Your task to perform on an android device: What's the news in Ecuador? Image 0: 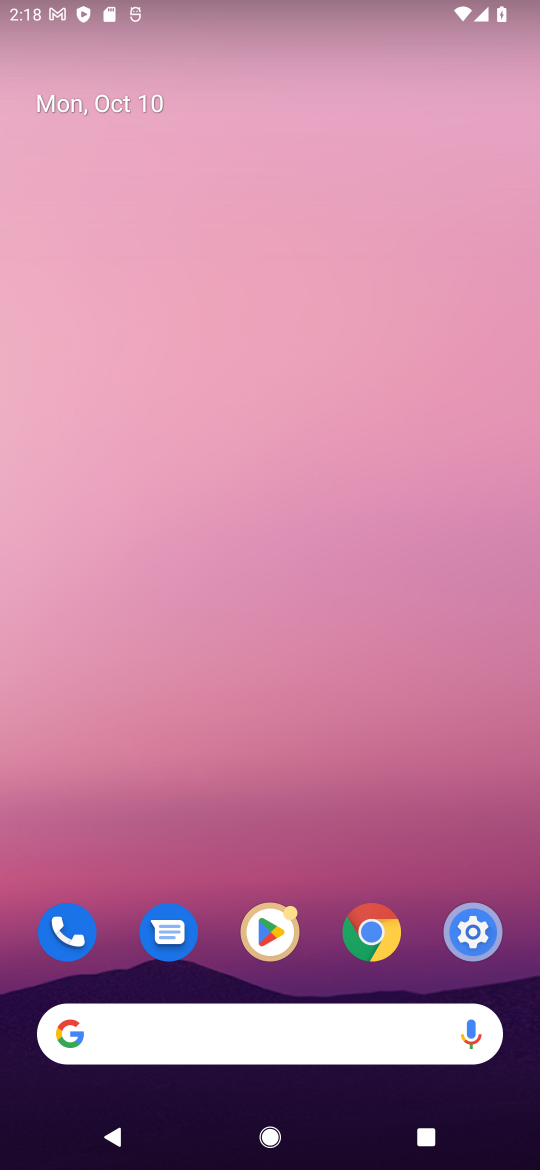
Step 0: click (237, 1034)
Your task to perform on an android device: What's the news in Ecuador? Image 1: 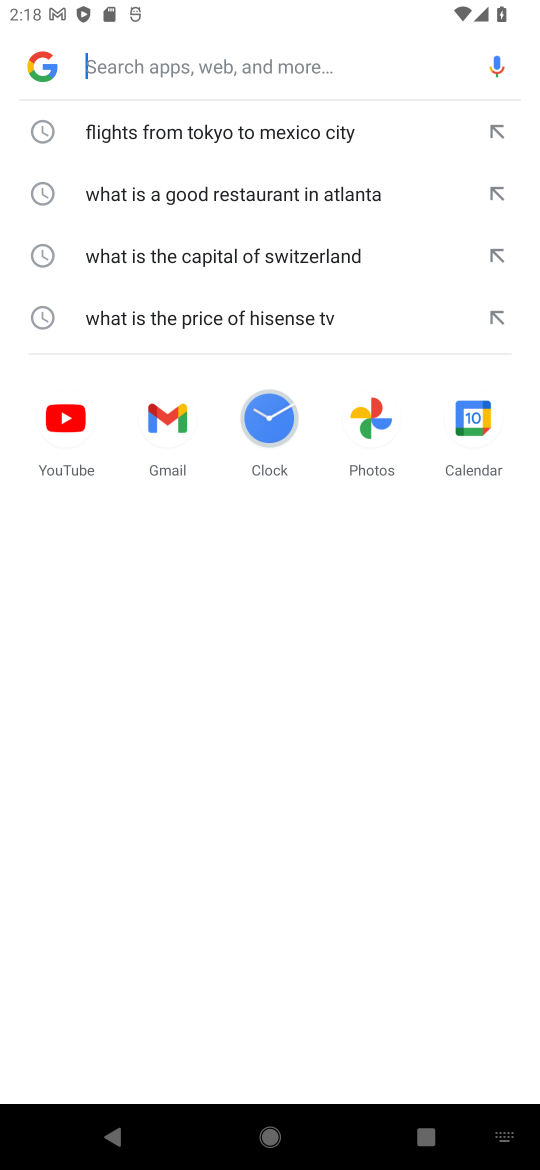
Step 1: type "What's the news in Ecuador"
Your task to perform on an android device: What's the news in Ecuador? Image 2: 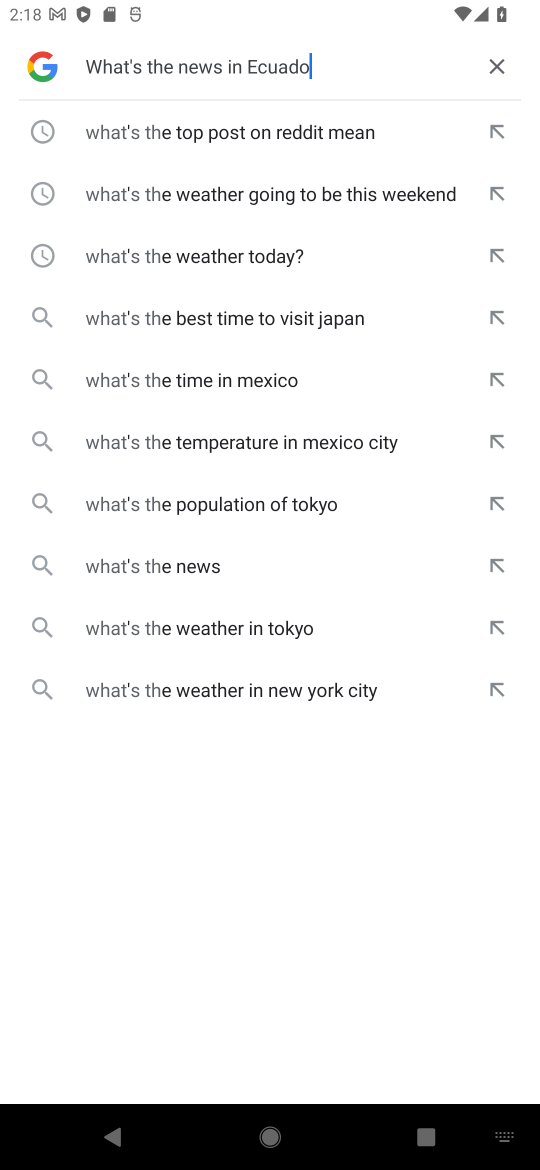
Step 2: press enter
Your task to perform on an android device: What's the news in Ecuador? Image 3: 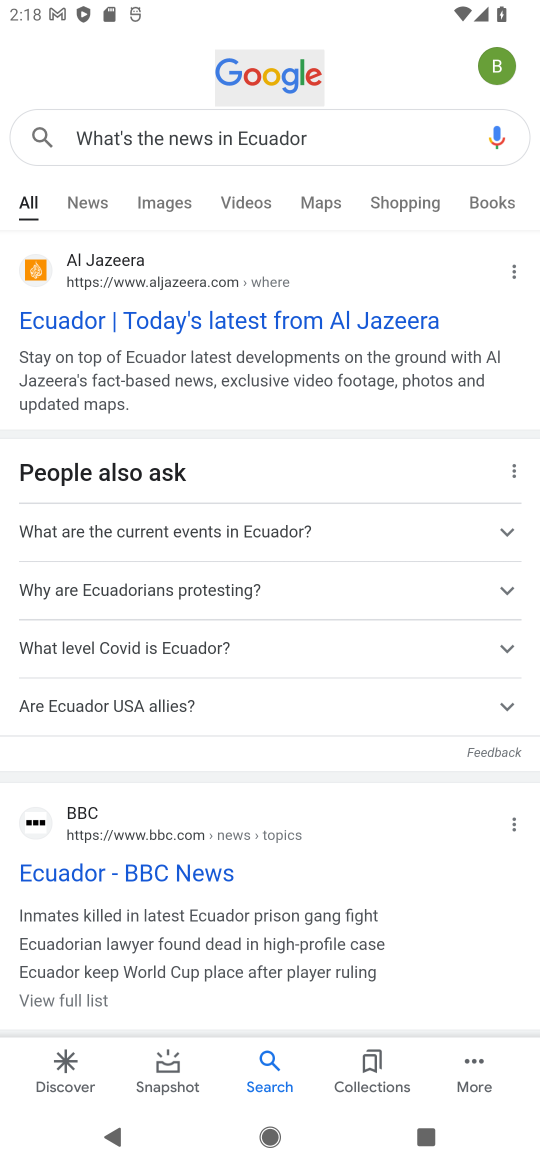
Step 3: click (332, 327)
Your task to perform on an android device: What's the news in Ecuador? Image 4: 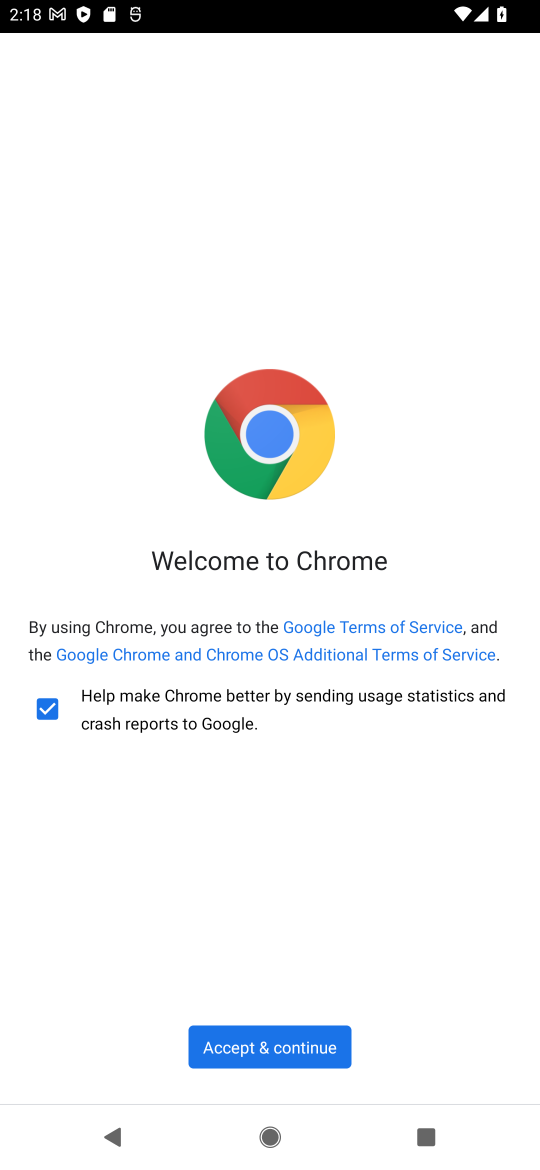
Step 4: click (318, 1037)
Your task to perform on an android device: What's the news in Ecuador? Image 5: 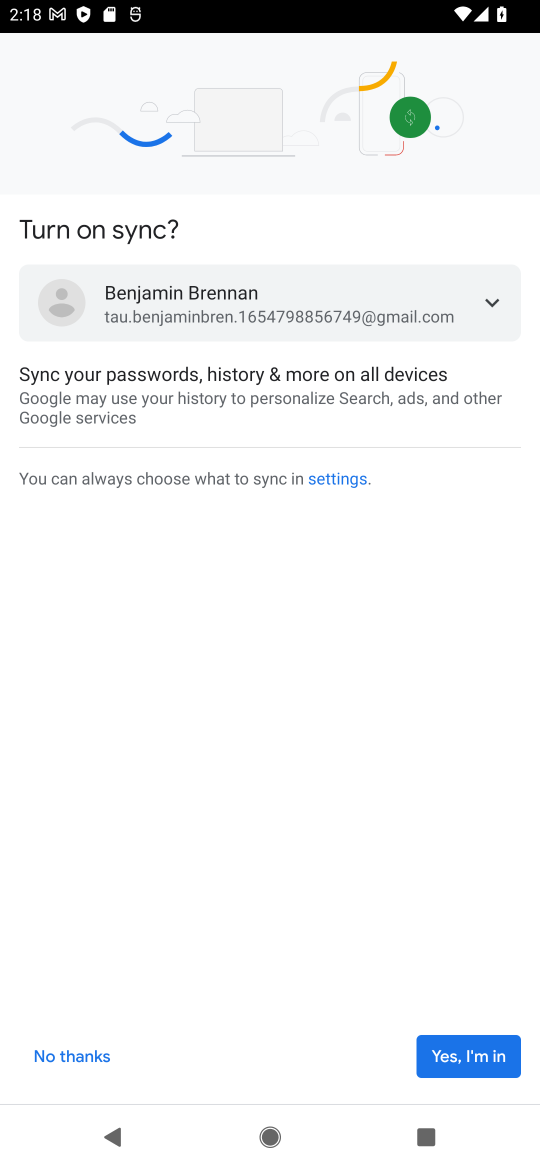
Step 5: click (473, 1057)
Your task to perform on an android device: What's the news in Ecuador? Image 6: 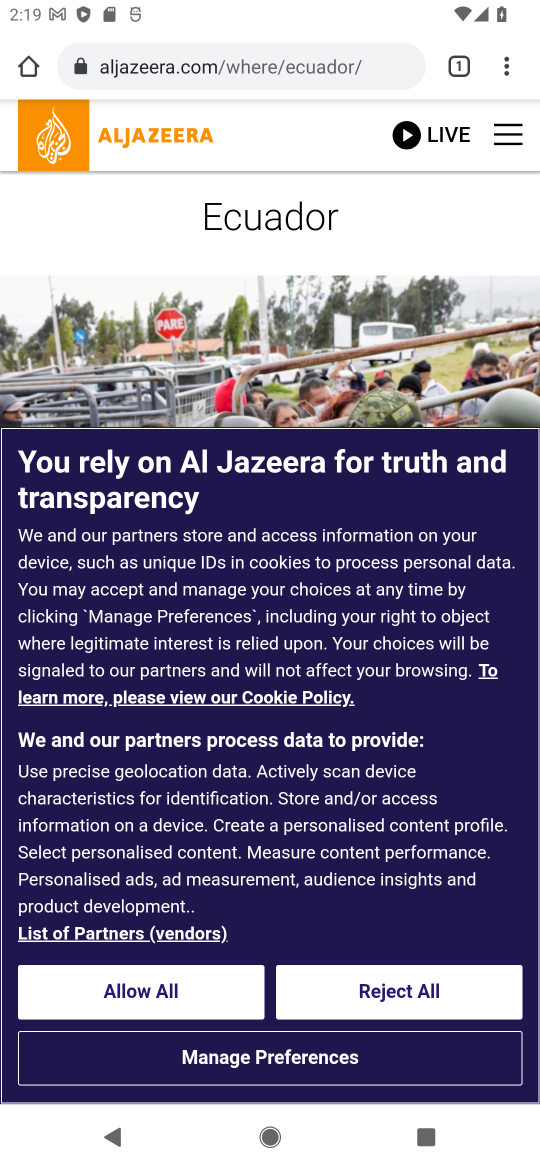
Step 6: click (150, 994)
Your task to perform on an android device: What's the news in Ecuador? Image 7: 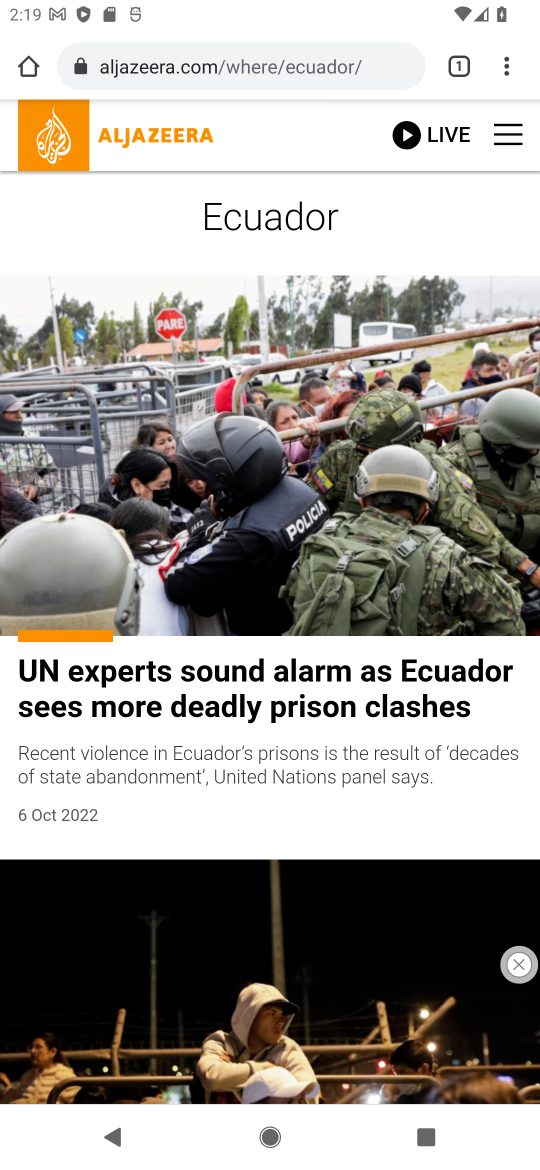
Step 7: click (162, 995)
Your task to perform on an android device: What's the news in Ecuador? Image 8: 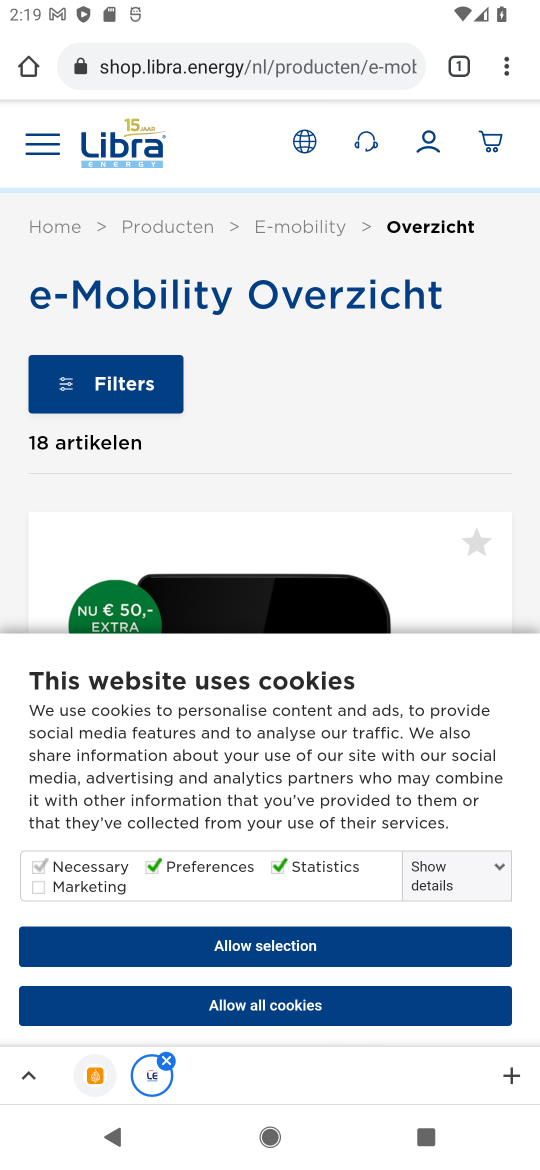
Step 8: task complete